Your task to perform on an android device: Open Chrome and go to the settings page Image 0: 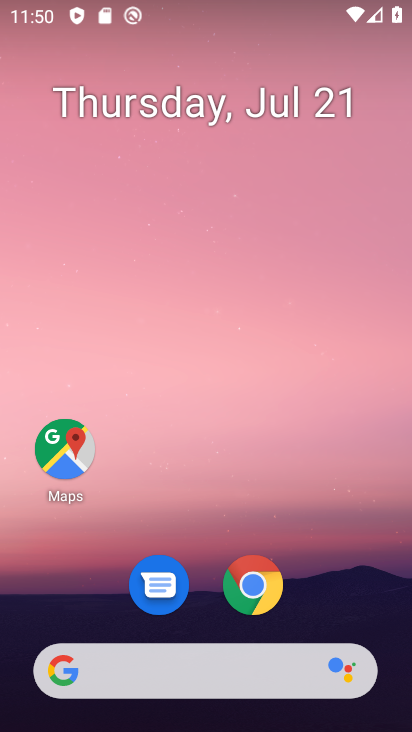
Step 0: press home button
Your task to perform on an android device: Open Chrome and go to the settings page Image 1: 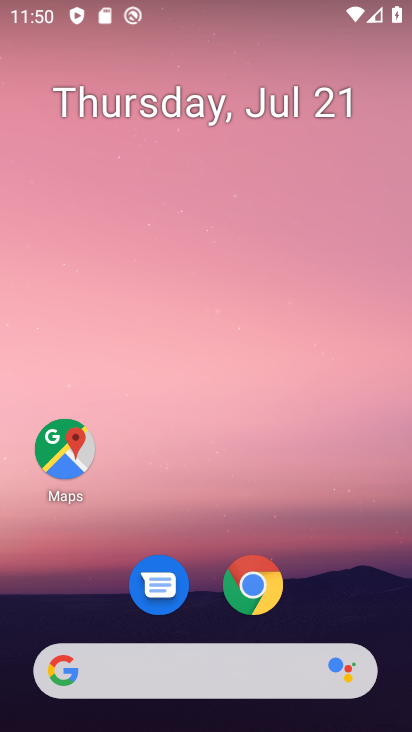
Step 1: click (259, 588)
Your task to perform on an android device: Open Chrome and go to the settings page Image 2: 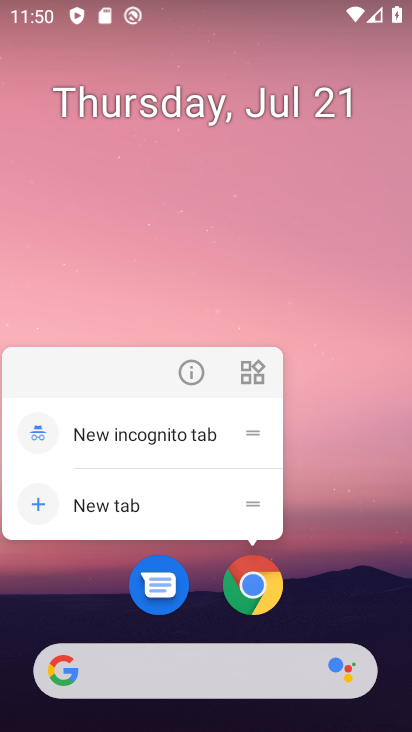
Step 2: click (259, 588)
Your task to perform on an android device: Open Chrome and go to the settings page Image 3: 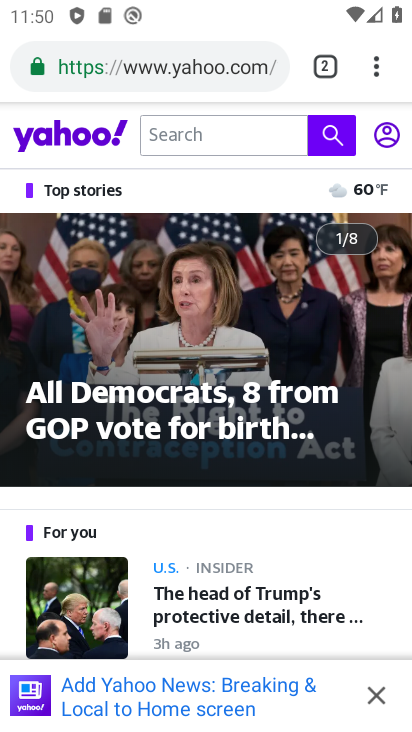
Step 3: task complete